Your task to perform on an android device: move an email to a new category in the gmail app Image 0: 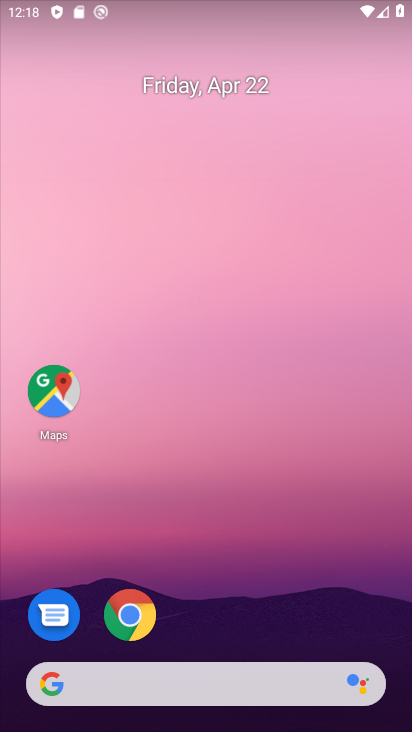
Step 0: drag from (187, 656) to (188, 126)
Your task to perform on an android device: move an email to a new category in the gmail app Image 1: 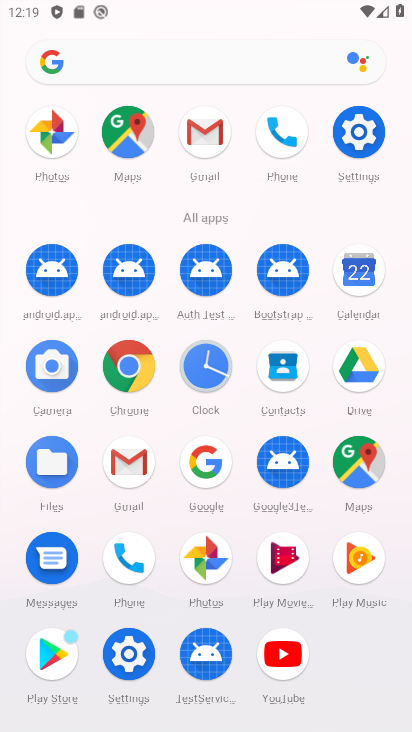
Step 1: click (131, 455)
Your task to perform on an android device: move an email to a new category in the gmail app Image 2: 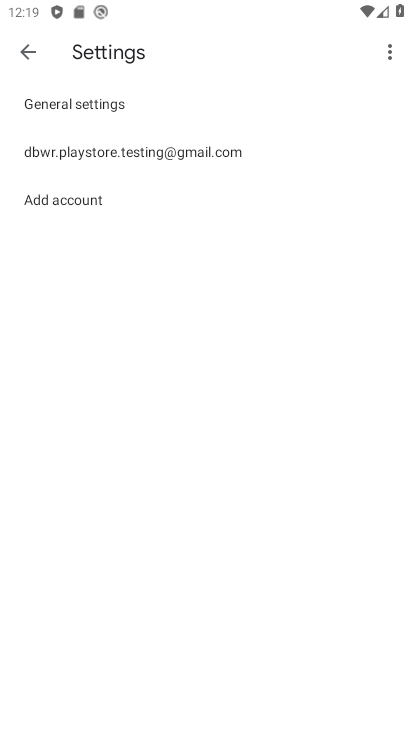
Step 2: click (160, 152)
Your task to perform on an android device: move an email to a new category in the gmail app Image 3: 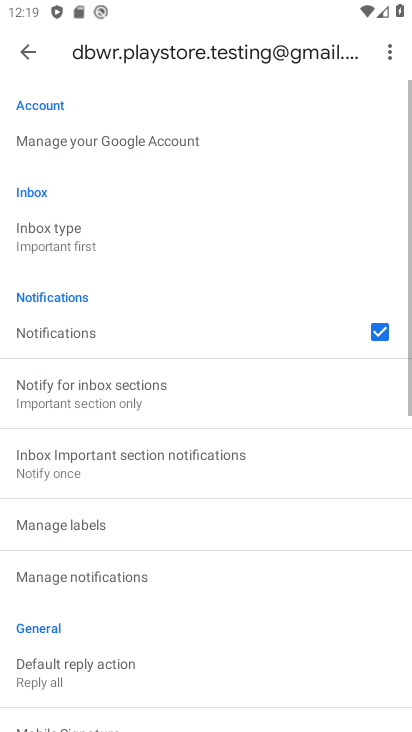
Step 3: click (33, 53)
Your task to perform on an android device: move an email to a new category in the gmail app Image 4: 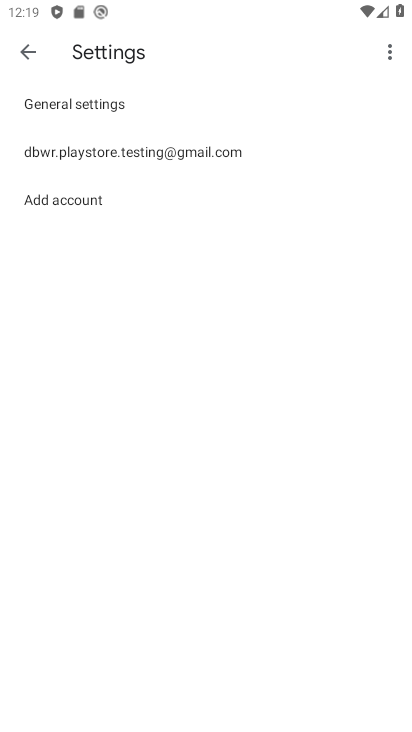
Step 4: click (33, 53)
Your task to perform on an android device: move an email to a new category in the gmail app Image 5: 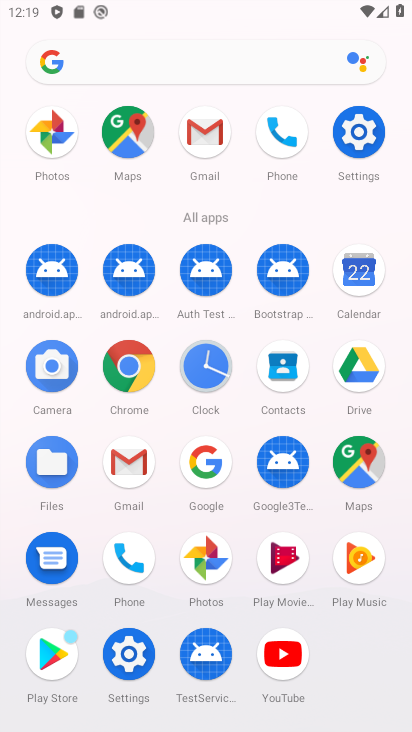
Step 5: click (217, 141)
Your task to perform on an android device: move an email to a new category in the gmail app Image 6: 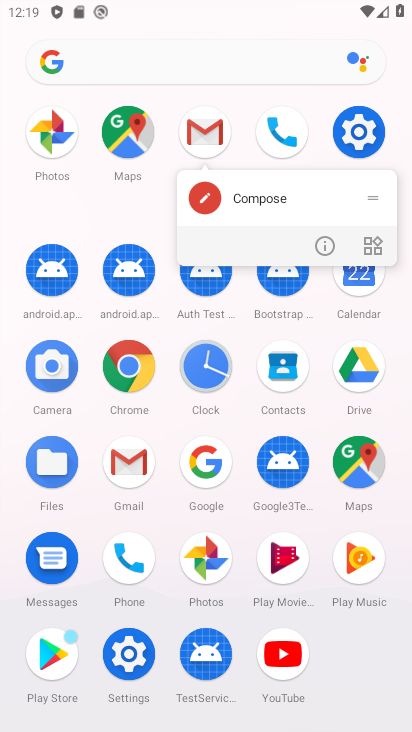
Step 6: click (217, 141)
Your task to perform on an android device: move an email to a new category in the gmail app Image 7: 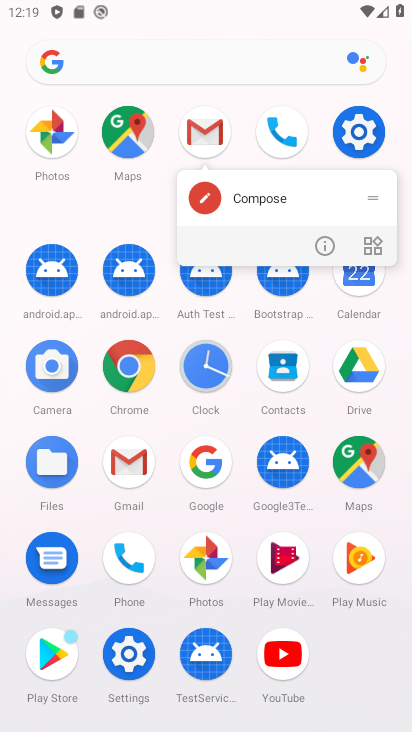
Step 7: click (216, 141)
Your task to perform on an android device: move an email to a new category in the gmail app Image 8: 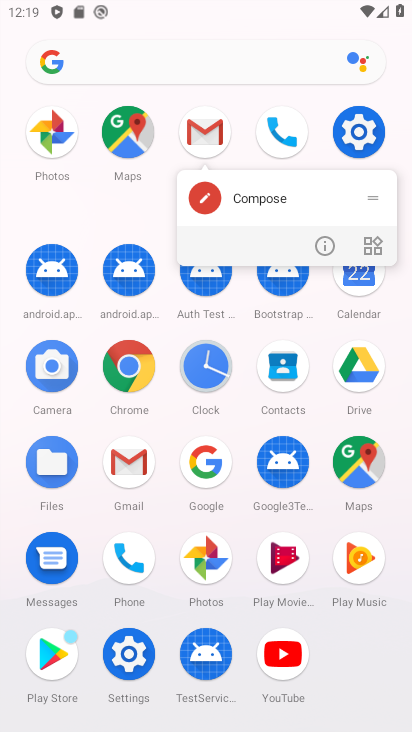
Step 8: click (216, 140)
Your task to perform on an android device: move an email to a new category in the gmail app Image 9: 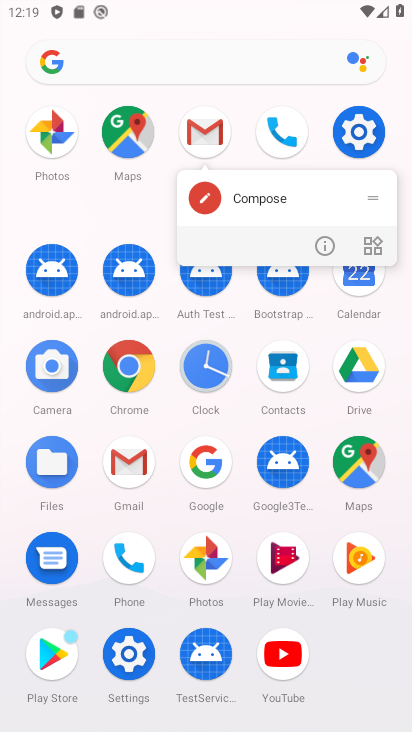
Step 9: click (216, 140)
Your task to perform on an android device: move an email to a new category in the gmail app Image 10: 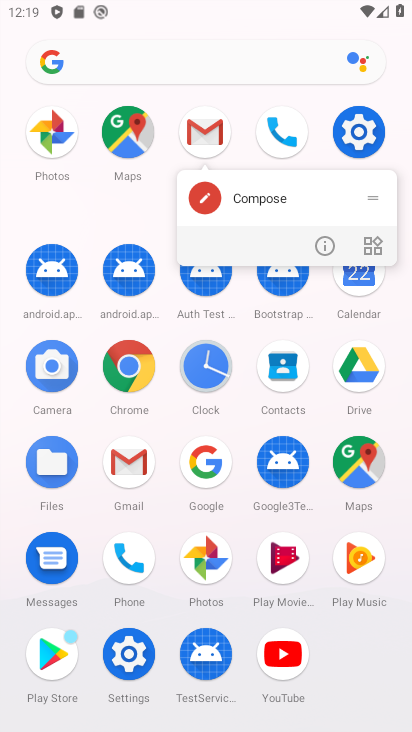
Step 10: click (216, 140)
Your task to perform on an android device: move an email to a new category in the gmail app Image 11: 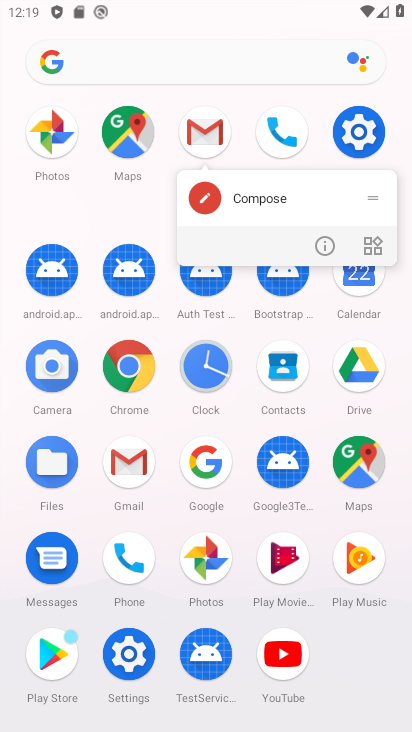
Step 11: click (216, 140)
Your task to perform on an android device: move an email to a new category in the gmail app Image 12: 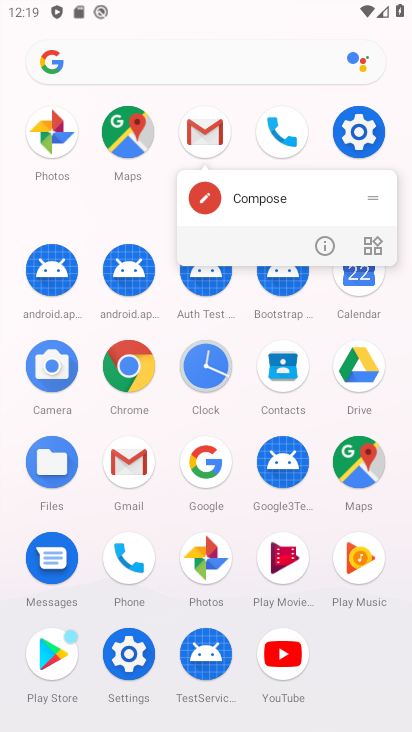
Step 12: click (216, 140)
Your task to perform on an android device: move an email to a new category in the gmail app Image 13: 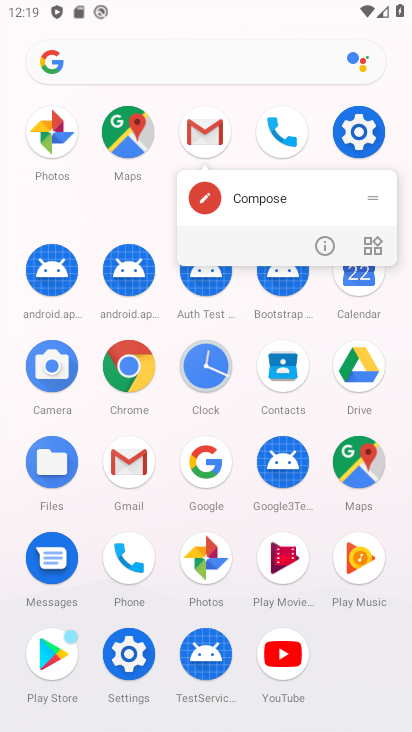
Step 13: click (208, 133)
Your task to perform on an android device: move an email to a new category in the gmail app Image 14: 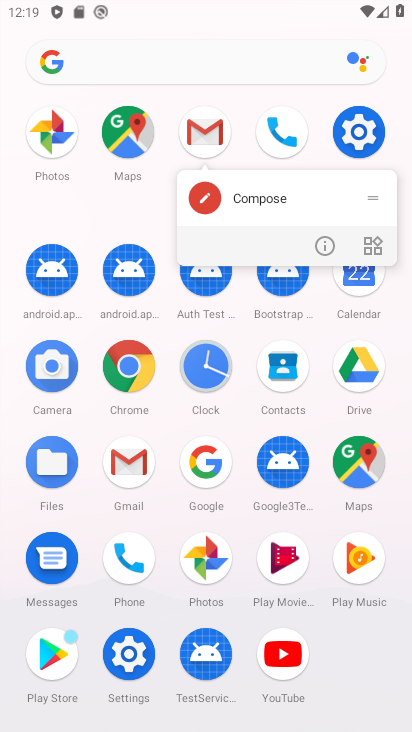
Step 14: click (128, 456)
Your task to perform on an android device: move an email to a new category in the gmail app Image 15: 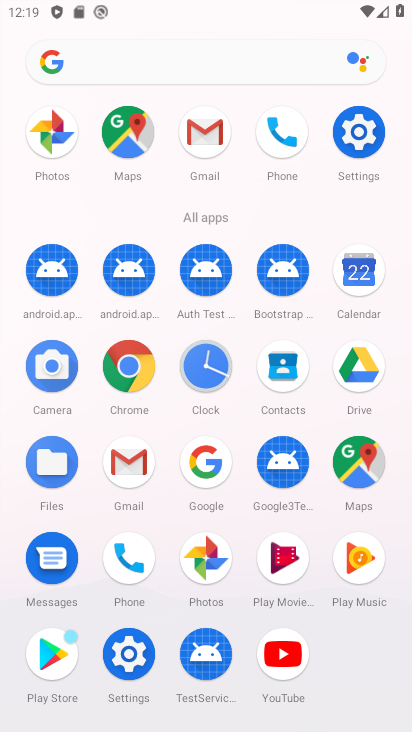
Step 15: click (127, 456)
Your task to perform on an android device: move an email to a new category in the gmail app Image 16: 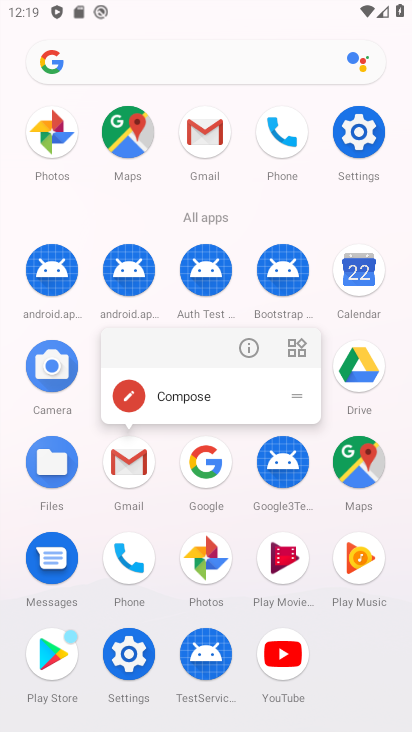
Step 16: click (115, 465)
Your task to perform on an android device: move an email to a new category in the gmail app Image 17: 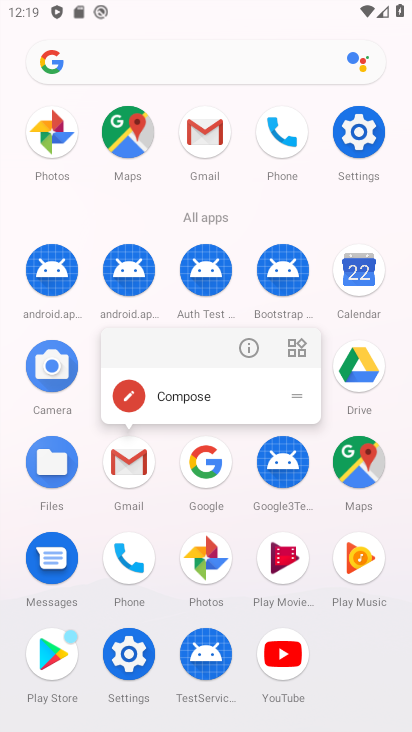
Step 17: click (138, 464)
Your task to perform on an android device: move an email to a new category in the gmail app Image 18: 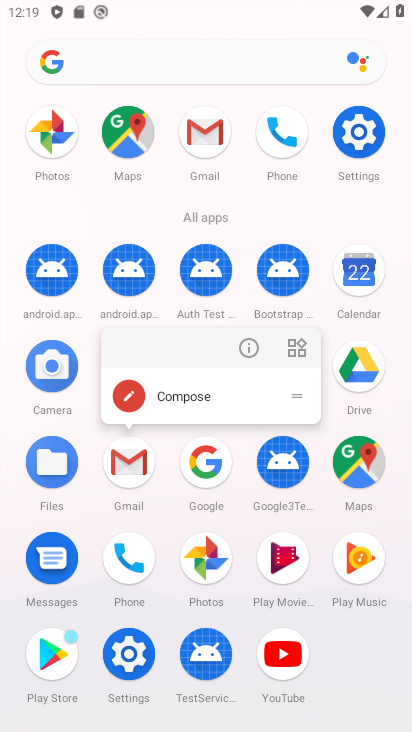
Step 18: click (137, 464)
Your task to perform on an android device: move an email to a new category in the gmail app Image 19: 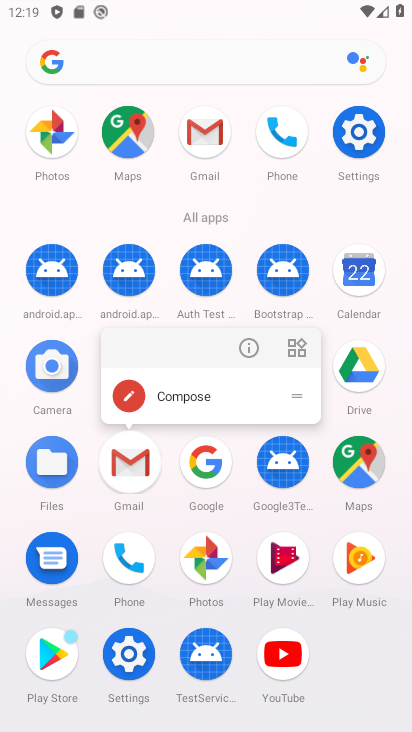
Step 19: click (136, 464)
Your task to perform on an android device: move an email to a new category in the gmail app Image 20: 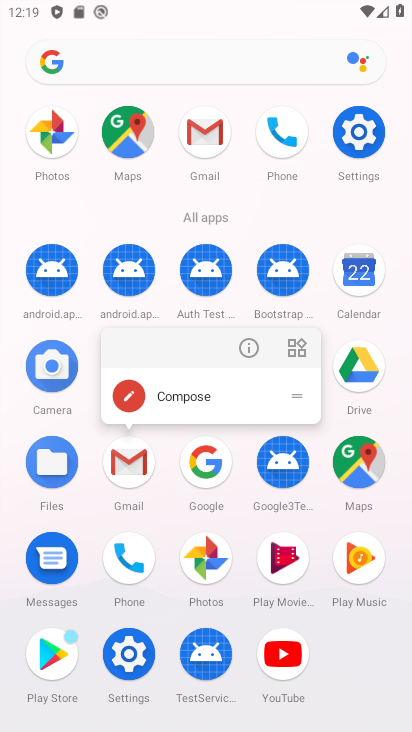
Step 20: click (136, 464)
Your task to perform on an android device: move an email to a new category in the gmail app Image 21: 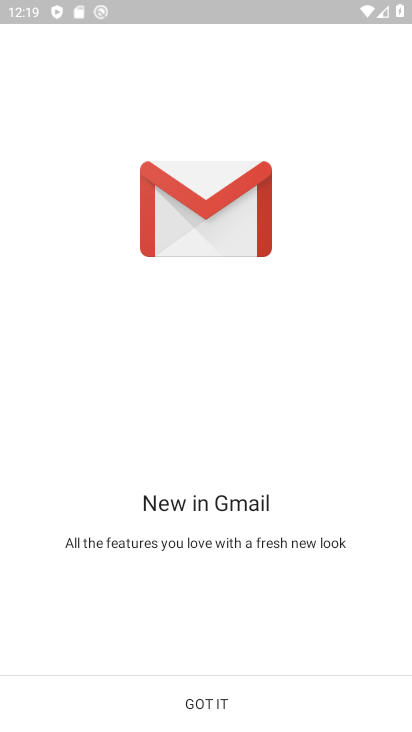
Step 21: click (206, 705)
Your task to perform on an android device: move an email to a new category in the gmail app Image 22: 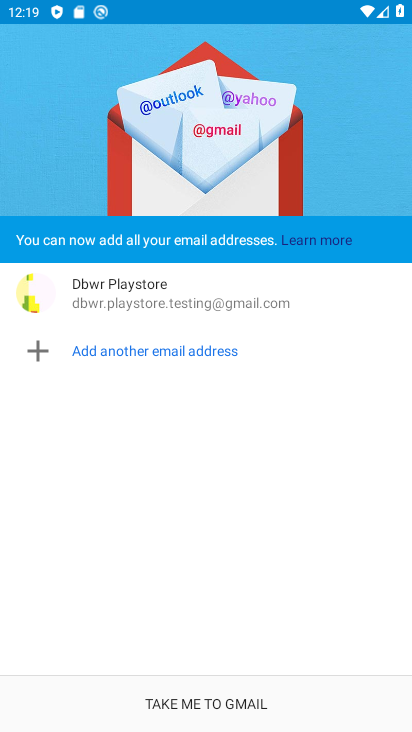
Step 22: click (206, 705)
Your task to perform on an android device: move an email to a new category in the gmail app Image 23: 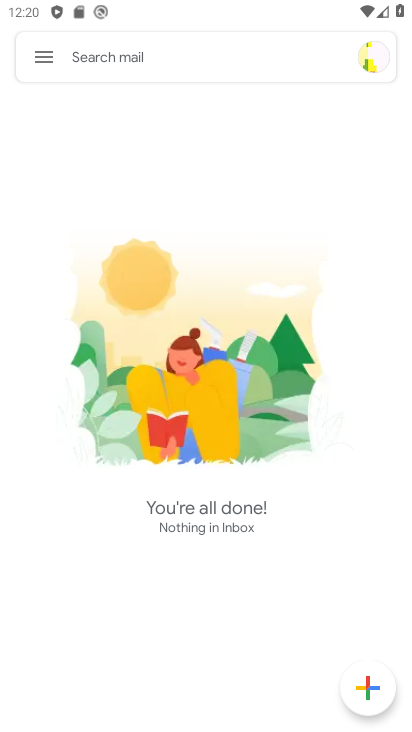
Step 23: task complete